Your task to perform on an android device: change notifications settings Image 0: 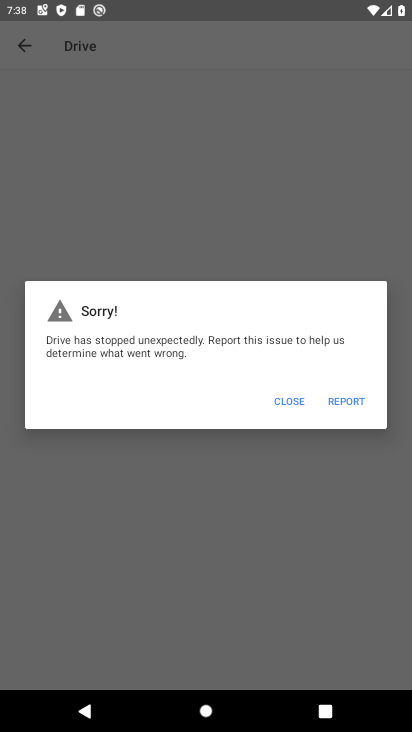
Step 0: press home button
Your task to perform on an android device: change notifications settings Image 1: 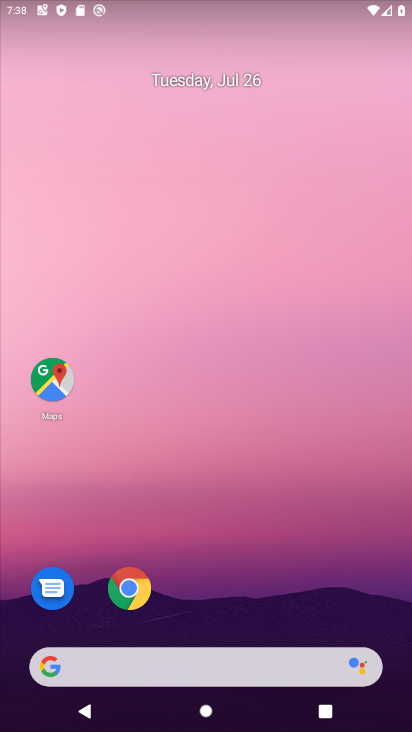
Step 1: drag from (200, 583) to (227, 152)
Your task to perform on an android device: change notifications settings Image 2: 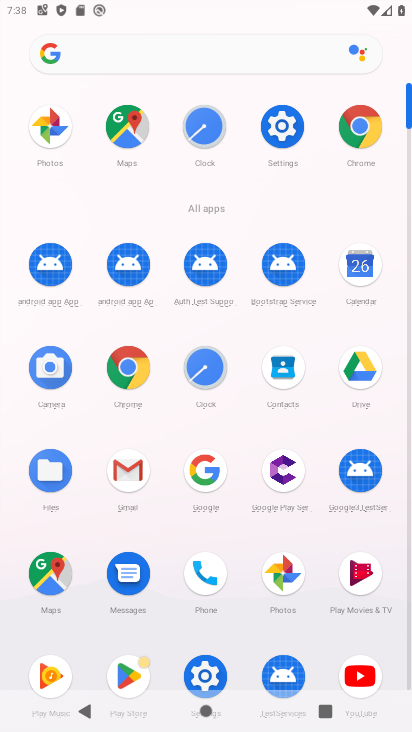
Step 2: click (282, 135)
Your task to perform on an android device: change notifications settings Image 3: 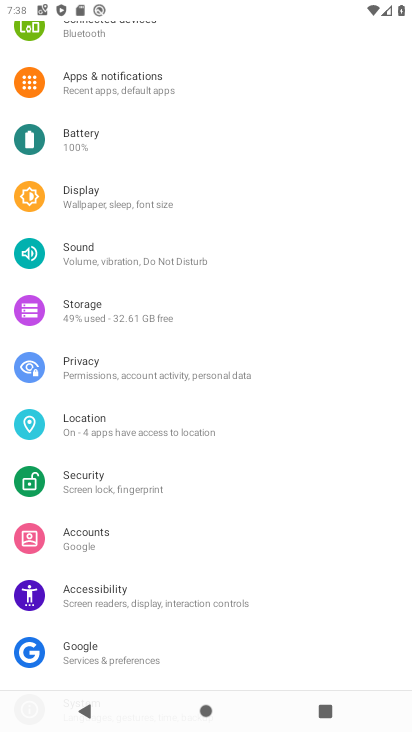
Step 3: task complete